Your task to perform on an android device: turn on javascript in the chrome app Image 0: 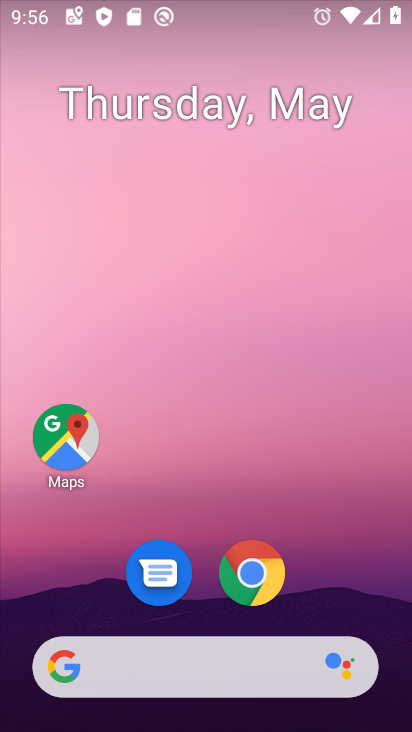
Step 0: click (230, 571)
Your task to perform on an android device: turn on javascript in the chrome app Image 1: 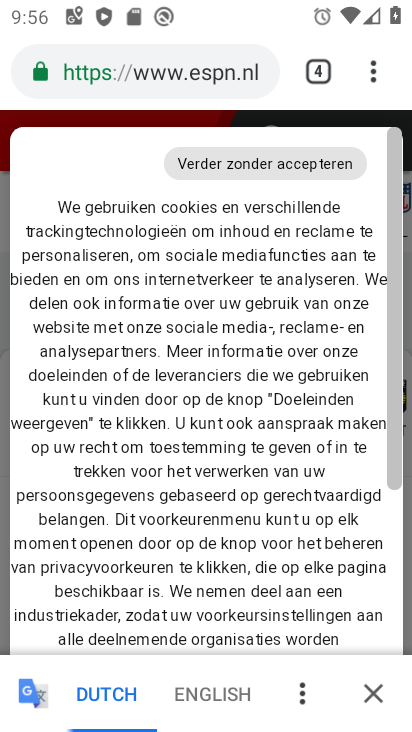
Step 1: click (324, 70)
Your task to perform on an android device: turn on javascript in the chrome app Image 2: 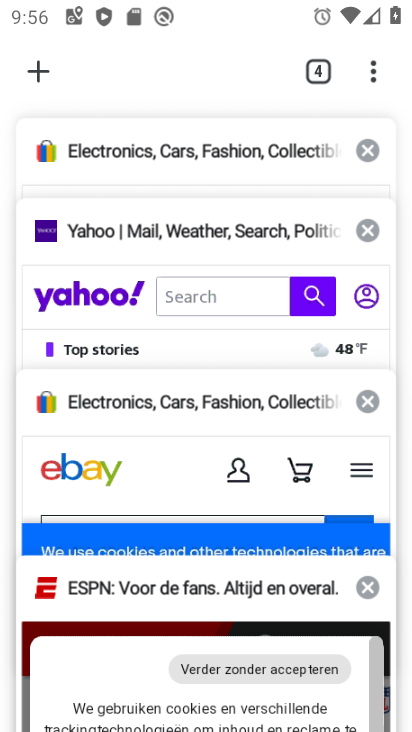
Step 2: click (370, 69)
Your task to perform on an android device: turn on javascript in the chrome app Image 3: 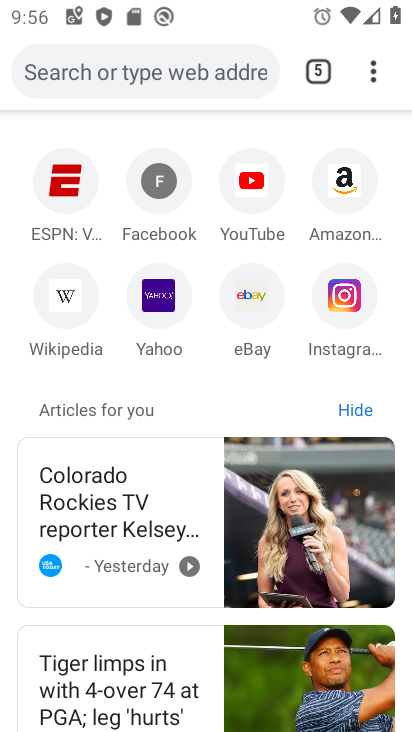
Step 3: click (370, 69)
Your task to perform on an android device: turn on javascript in the chrome app Image 4: 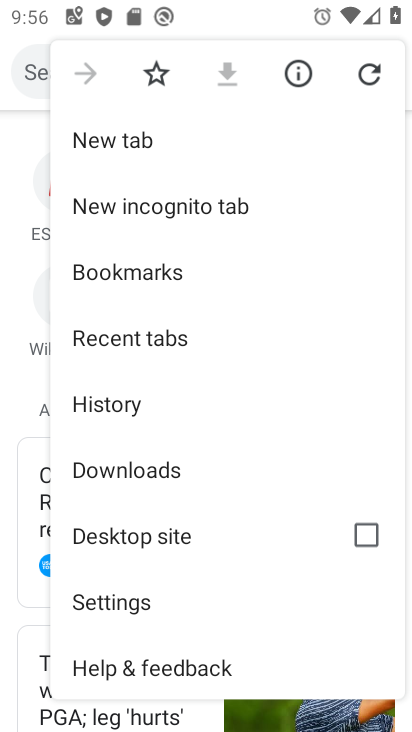
Step 4: click (152, 610)
Your task to perform on an android device: turn on javascript in the chrome app Image 5: 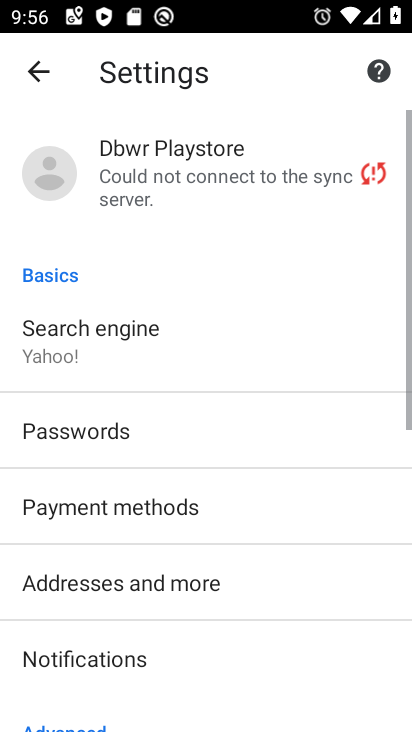
Step 5: drag from (159, 605) to (211, 254)
Your task to perform on an android device: turn on javascript in the chrome app Image 6: 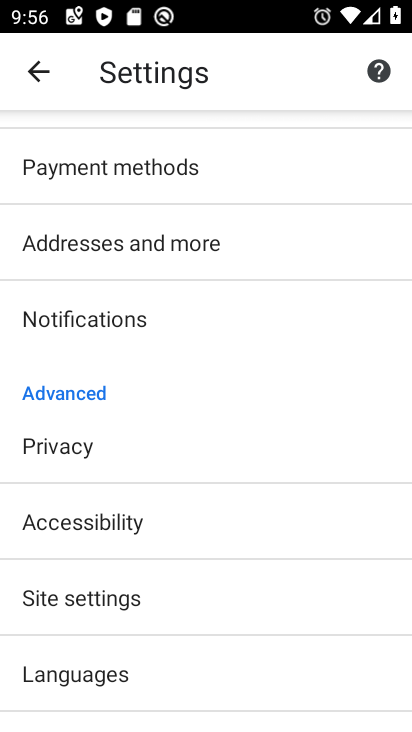
Step 6: click (136, 603)
Your task to perform on an android device: turn on javascript in the chrome app Image 7: 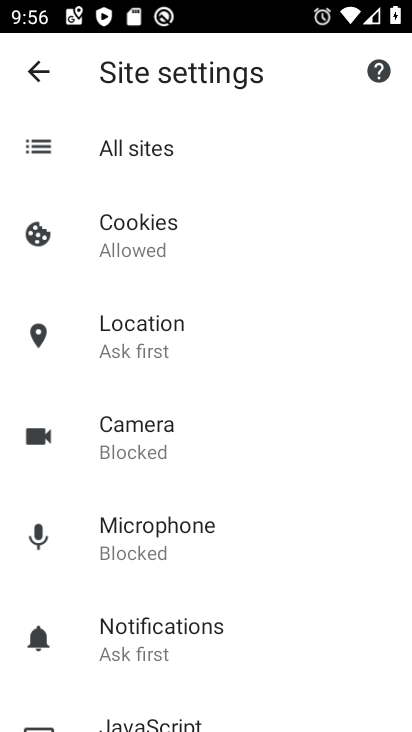
Step 7: drag from (190, 688) to (214, 438)
Your task to perform on an android device: turn on javascript in the chrome app Image 8: 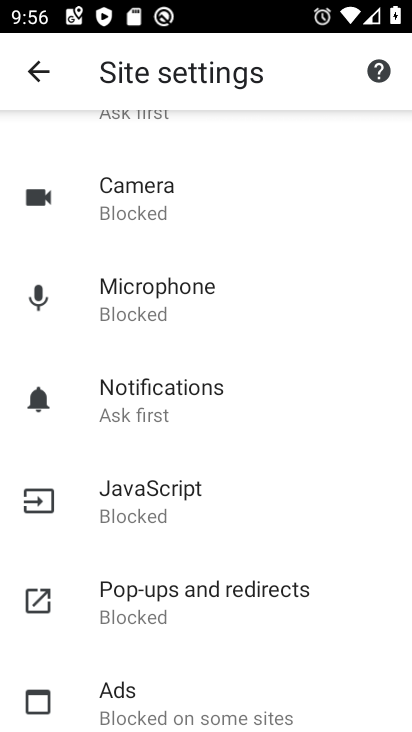
Step 8: click (186, 488)
Your task to perform on an android device: turn on javascript in the chrome app Image 9: 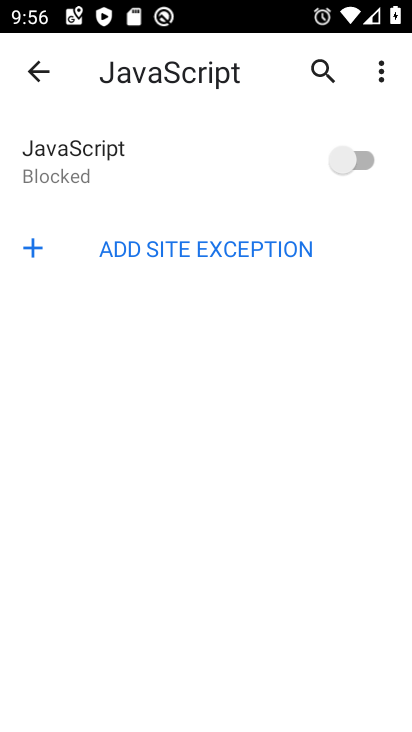
Step 9: click (363, 163)
Your task to perform on an android device: turn on javascript in the chrome app Image 10: 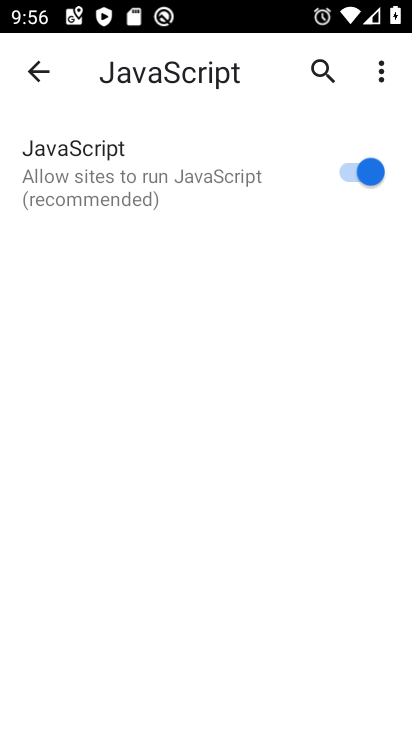
Step 10: task complete